Your task to perform on an android device: install app "Roku - Official Remote Control" Image 0: 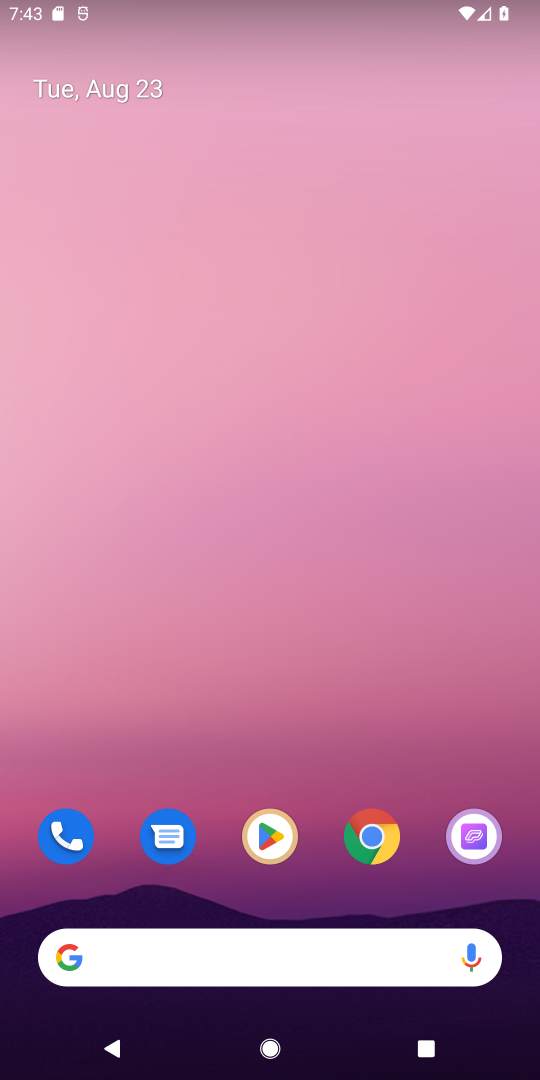
Step 0: click (274, 842)
Your task to perform on an android device: install app "Roku - Official Remote Control" Image 1: 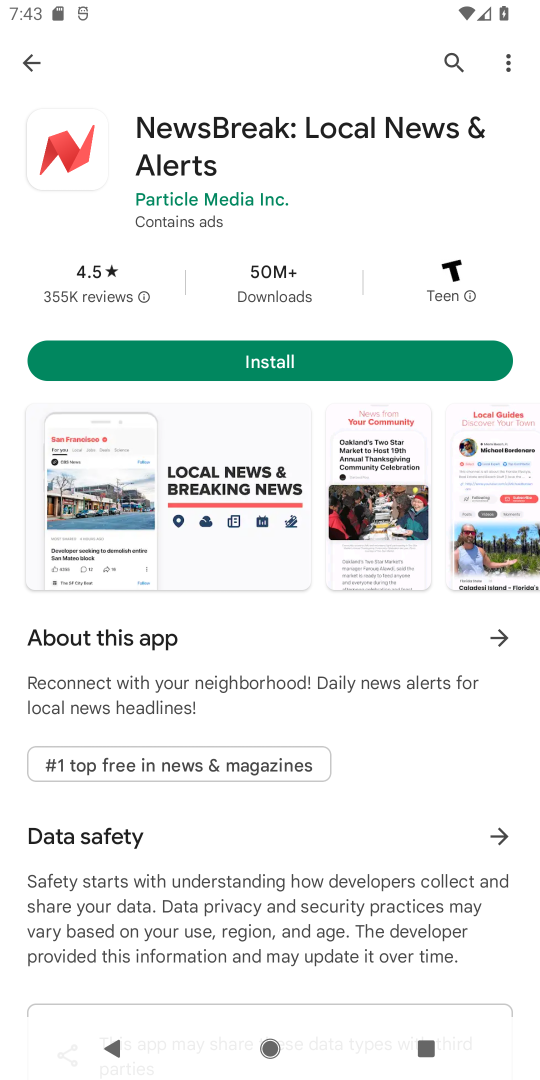
Step 1: click (450, 54)
Your task to perform on an android device: install app "Roku - Official Remote Control" Image 2: 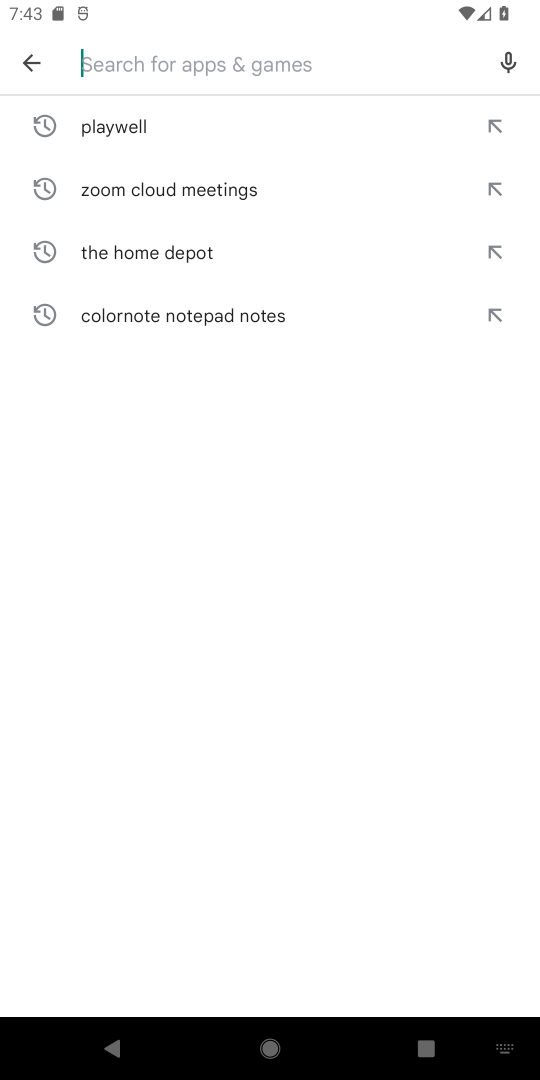
Step 2: type "Roku - Official Remote Control"
Your task to perform on an android device: install app "Roku - Official Remote Control" Image 3: 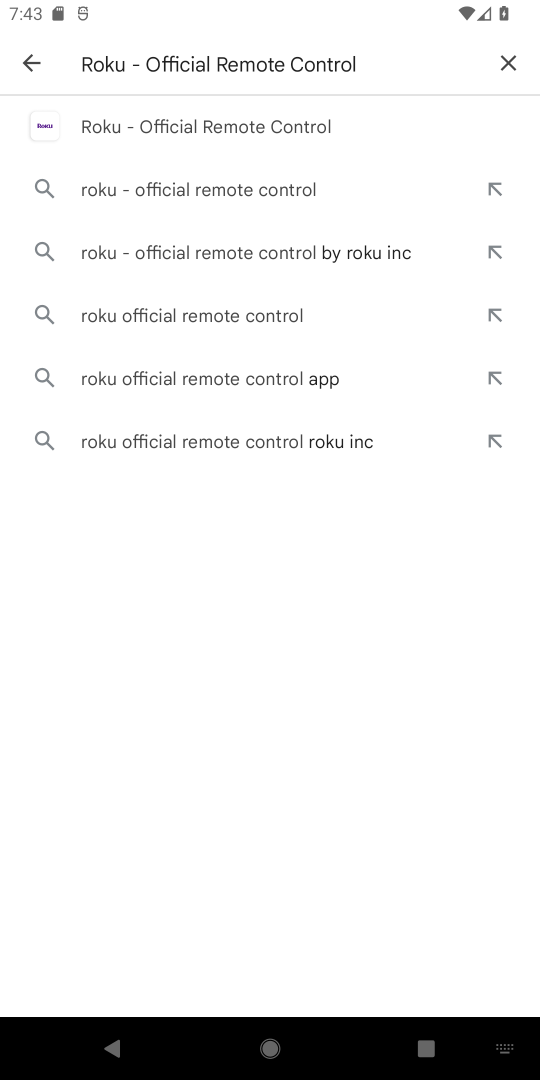
Step 3: click (272, 124)
Your task to perform on an android device: install app "Roku - Official Remote Control" Image 4: 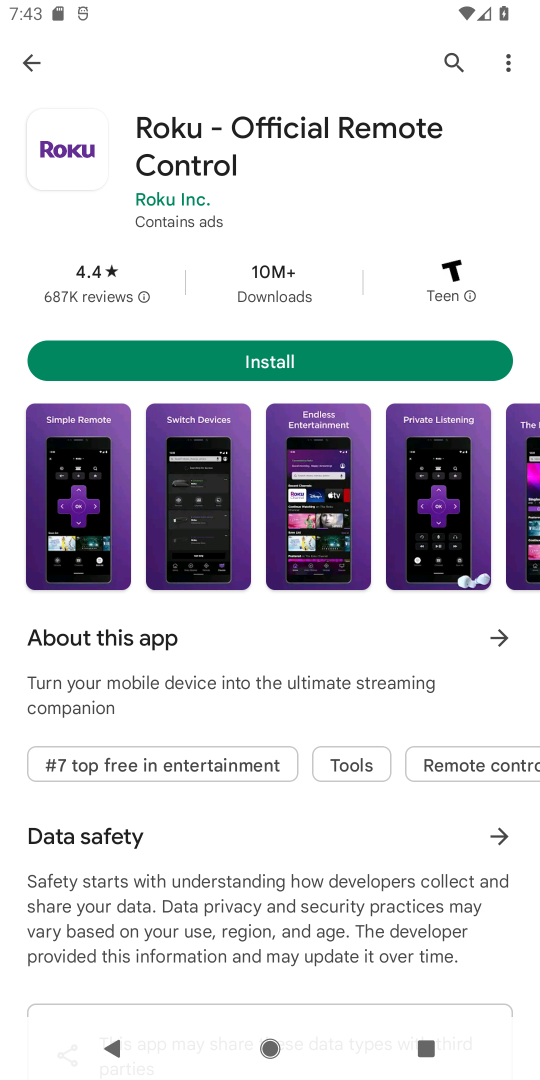
Step 4: click (287, 358)
Your task to perform on an android device: install app "Roku - Official Remote Control" Image 5: 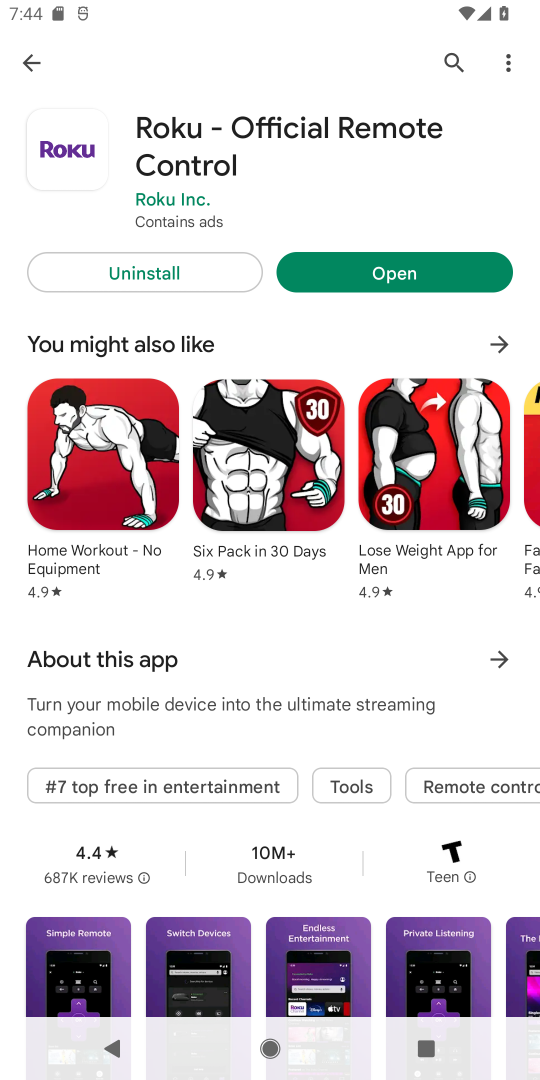
Step 5: task complete